Your task to perform on an android device: Go to eBay Image 0: 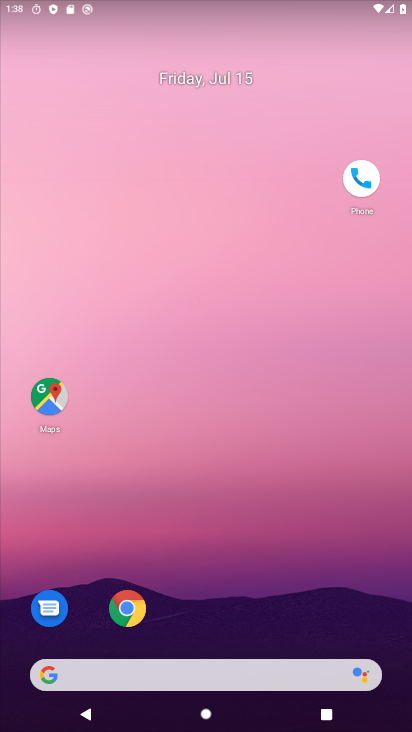
Step 0: drag from (263, 521) to (343, 412)
Your task to perform on an android device: Go to eBay Image 1: 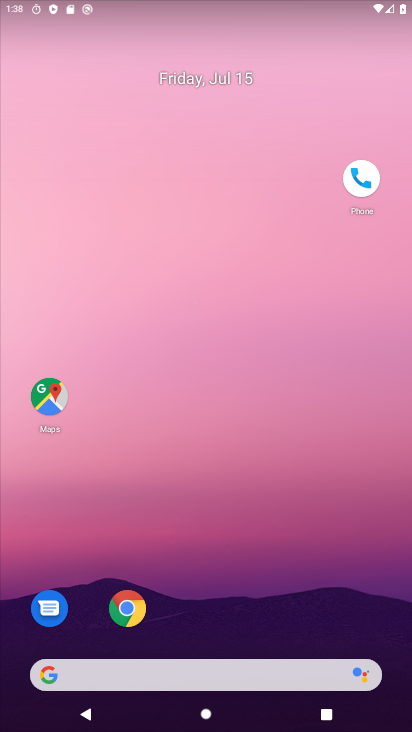
Step 1: drag from (193, 601) to (289, 2)
Your task to perform on an android device: Go to eBay Image 2: 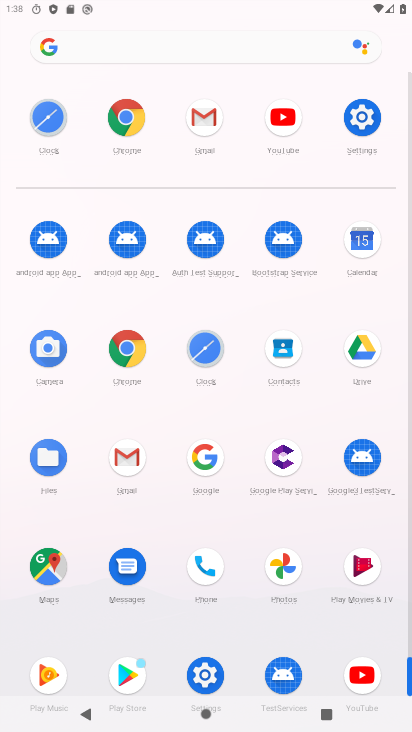
Step 2: click (132, 52)
Your task to perform on an android device: Go to eBay Image 3: 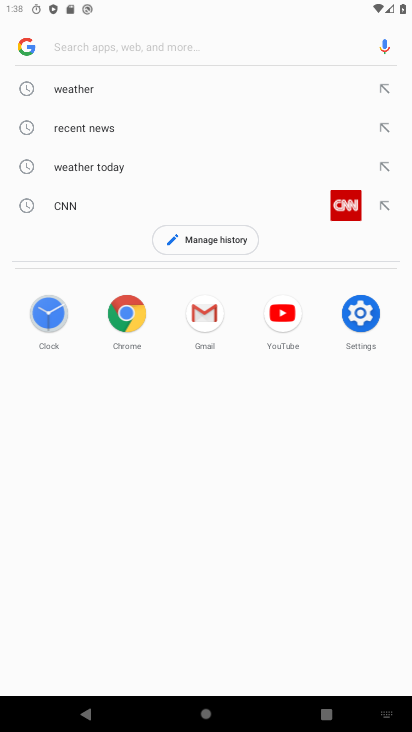
Step 3: type "ebay"
Your task to perform on an android device: Go to eBay Image 4: 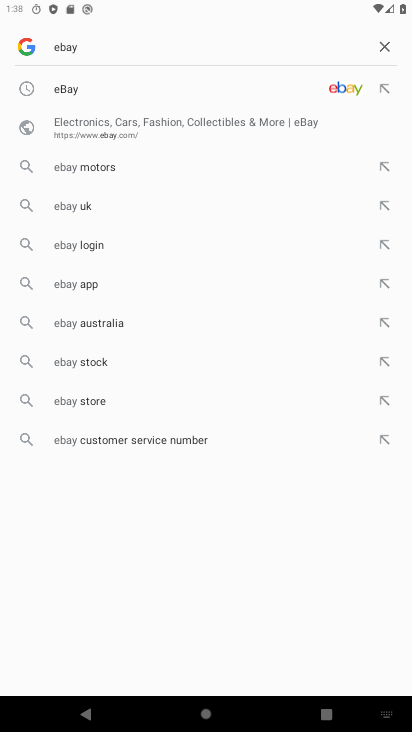
Step 4: click (83, 92)
Your task to perform on an android device: Go to eBay Image 5: 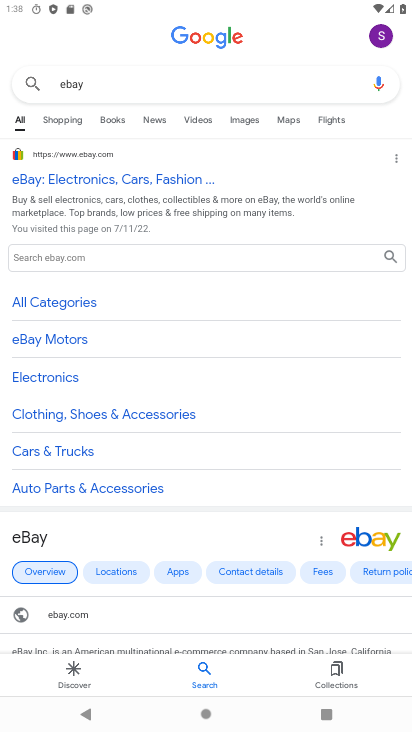
Step 5: click (69, 176)
Your task to perform on an android device: Go to eBay Image 6: 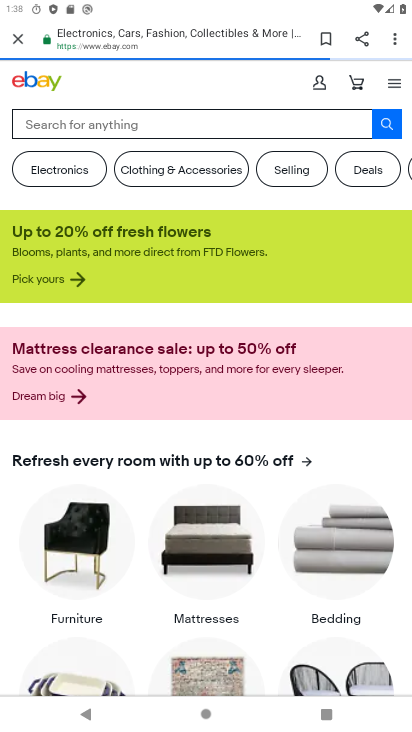
Step 6: task complete